Your task to perform on an android device: toggle data saver in the chrome app Image 0: 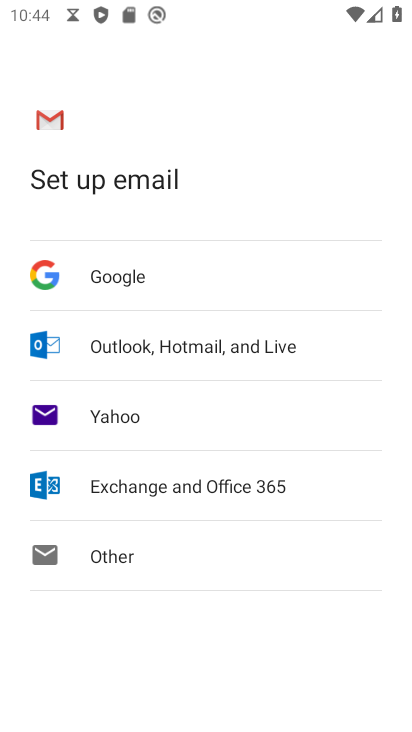
Step 0: press back button
Your task to perform on an android device: toggle data saver in the chrome app Image 1: 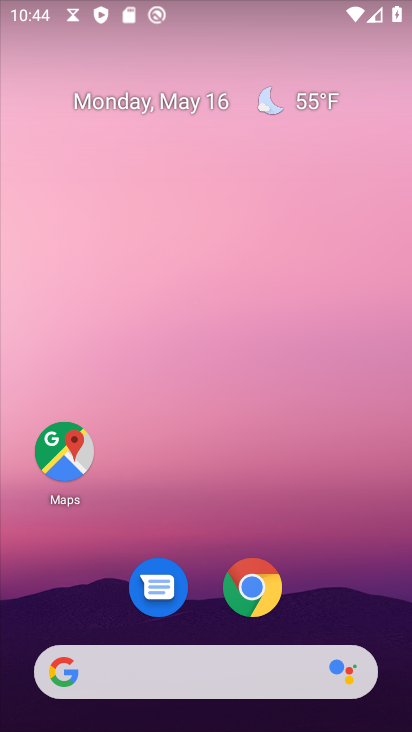
Step 1: drag from (347, 593) to (285, 30)
Your task to perform on an android device: toggle data saver in the chrome app Image 2: 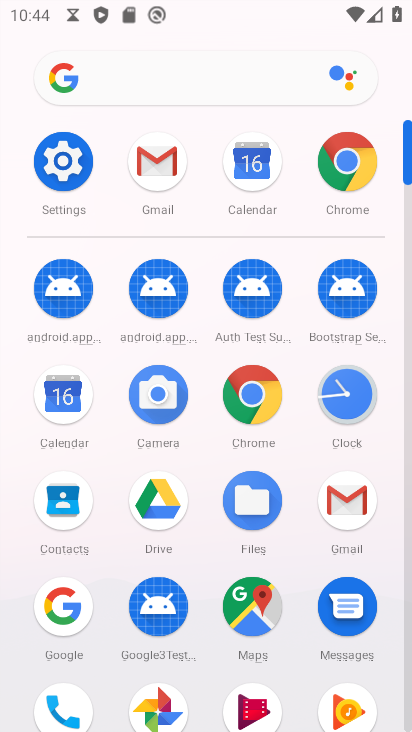
Step 2: drag from (5, 548) to (7, 282)
Your task to perform on an android device: toggle data saver in the chrome app Image 3: 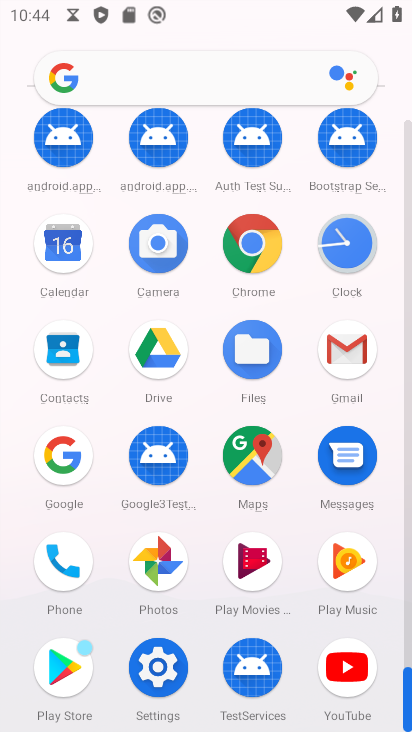
Step 3: click (249, 240)
Your task to perform on an android device: toggle data saver in the chrome app Image 4: 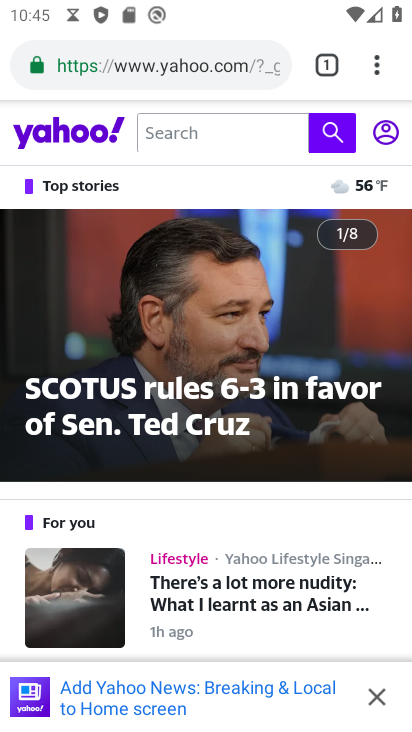
Step 4: drag from (368, 63) to (155, 641)
Your task to perform on an android device: toggle data saver in the chrome app Image 5: 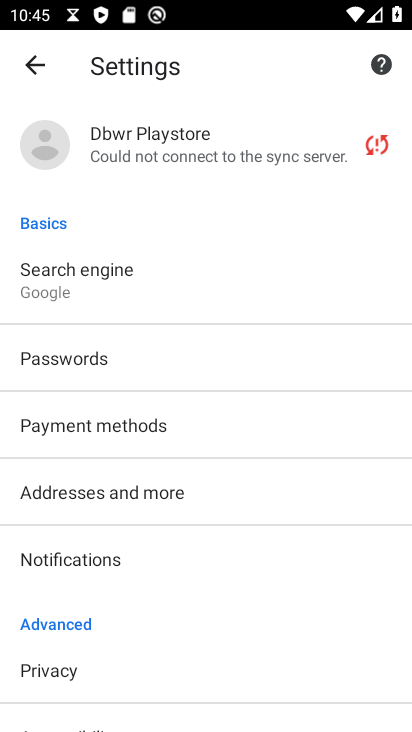
Step 5: drag from (206, 579) to (199, 221)
Your task to perform on an android device: toggle data saver in the chrome app Image 6: 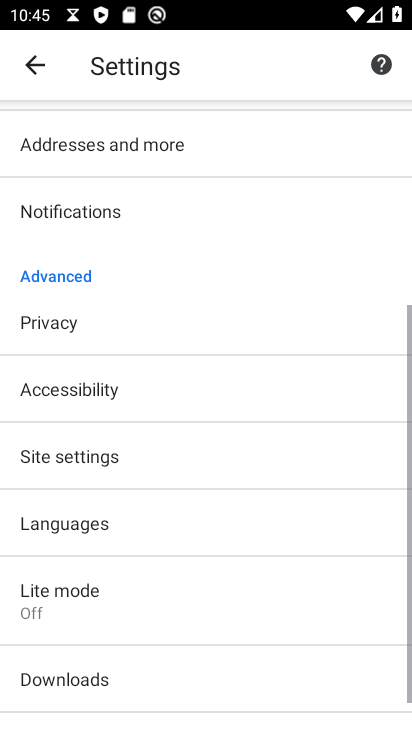
Step 6: drag from (174, 589) to (155, 169)
Your task to perform on an android device: toggle data saver in the chrome app Image 7: 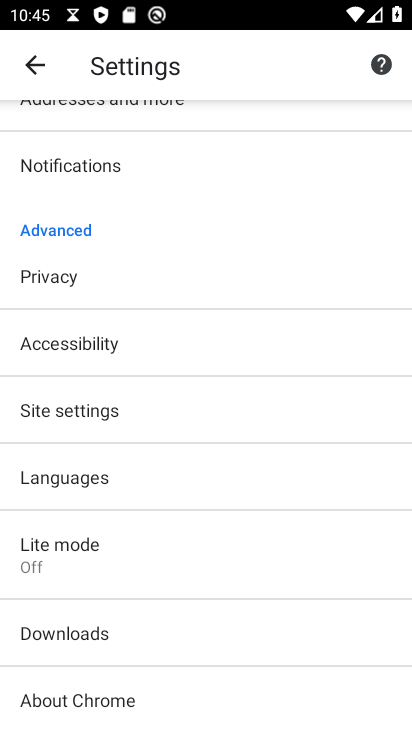
Step 7: drag from (152, 541) to (153, 210)
Your task to perform on an android device: toggle data saver in the chrome app Image 8: 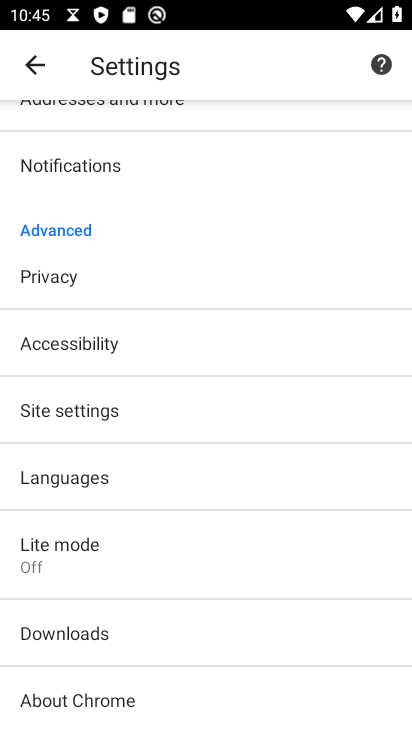
Step 8: click (109, 558)
Your task to perform on an android device: toggle data saver in the chrome app Image 9: 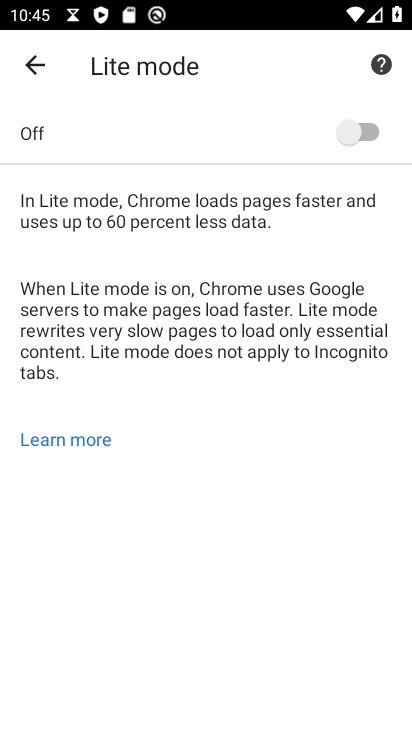
Step 9: click (364, 121)
Your task to perform on an android device: toggle data saver in the chrome app Image 10: 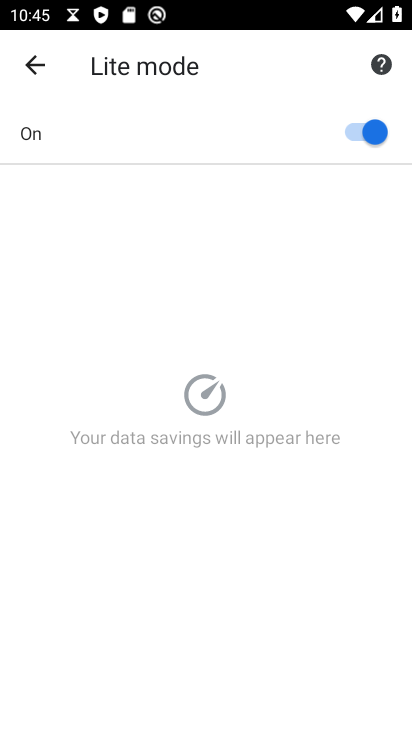
Step 10: task complete